Your task to perform on an android device: Open Google Maps Image 0: 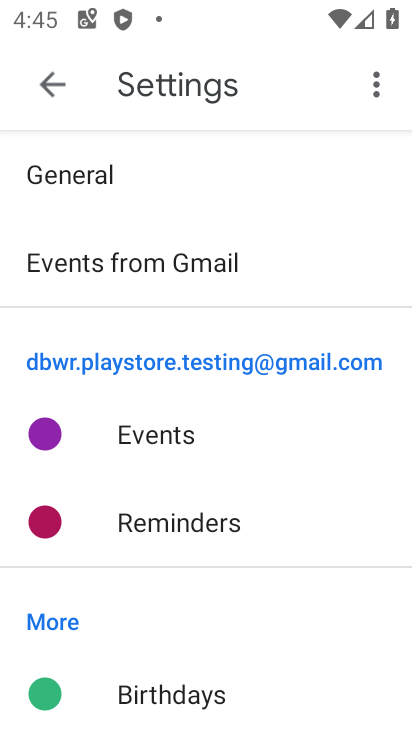
Step 0: press back button
Your task to perform on an android device: Open Google Maps Image 1: 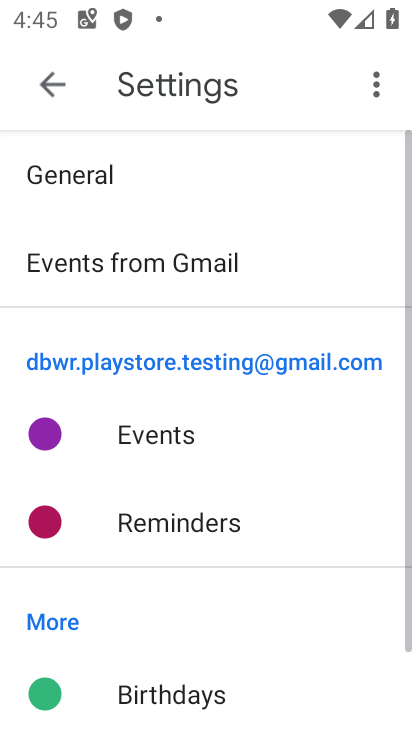
Step 1: press home button
Your task to perform on an android device: Open Google Maps Image 2: 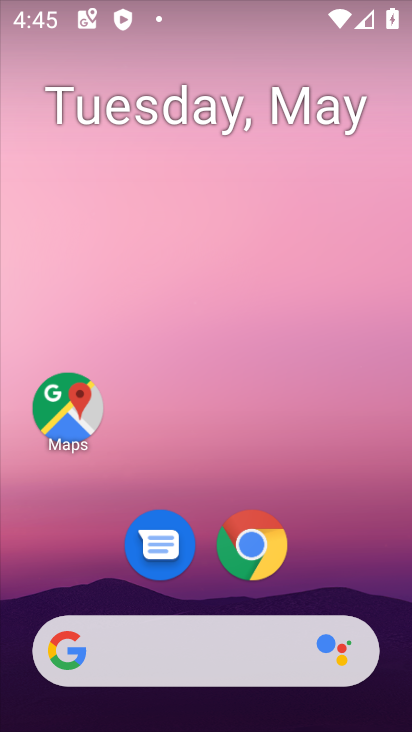
Step 2: drag from (312, 615) to (270, 21)
Your task to perform on an android device: Open Google Maps Image 3: 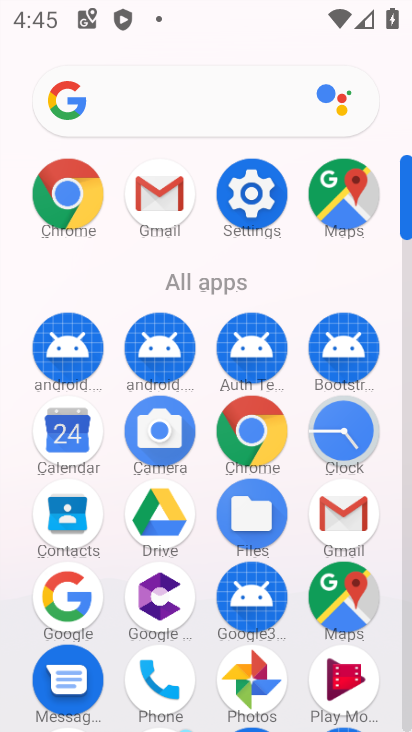
Step 3: drag from (11, 576) to (12, 255)
Your task to perform on an android device: Open Google Maps Image 4: 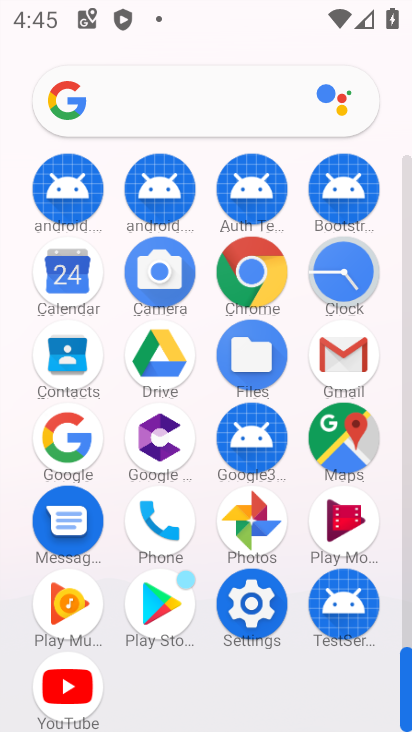
Step 4: click (344, 440)
Your task to perform on an android device: Open Google Maps Image 5: 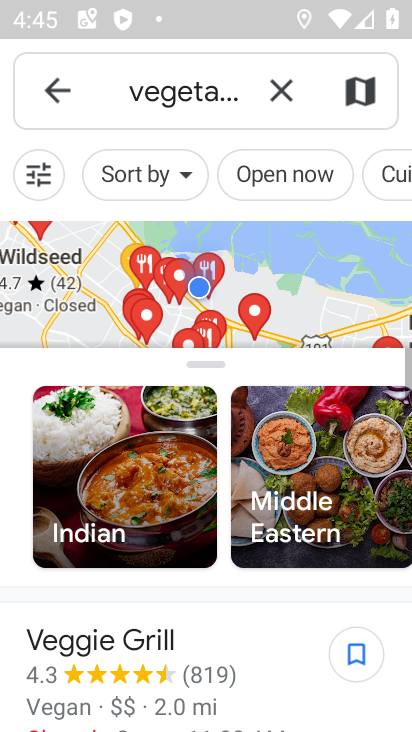
Step 5: click (52, 91)
Your task to perform on an android device: Open Google Maps Image 6: 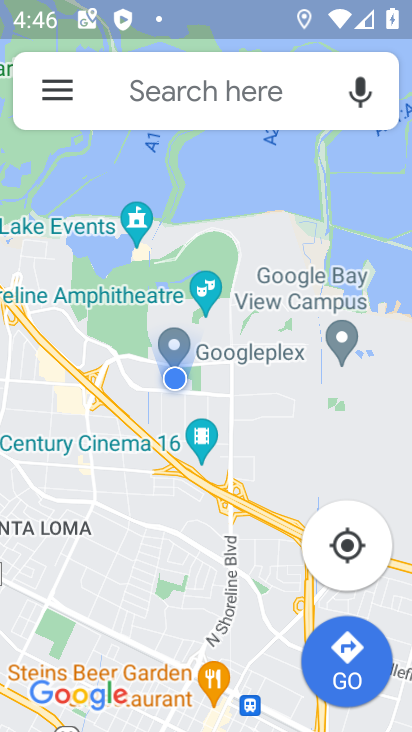
Step 6: task complete